Your task to perform on an android device: Do I have any events this weekend? Image 0: 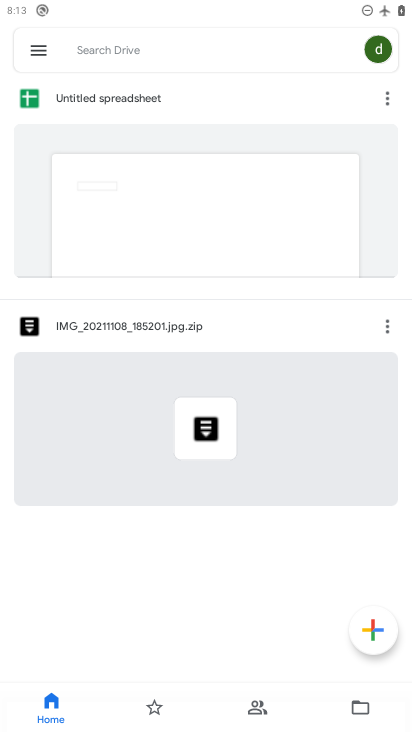
Step 0: press home button
Your task to perform on an android device: Do I have any events this weekend? Image 1: 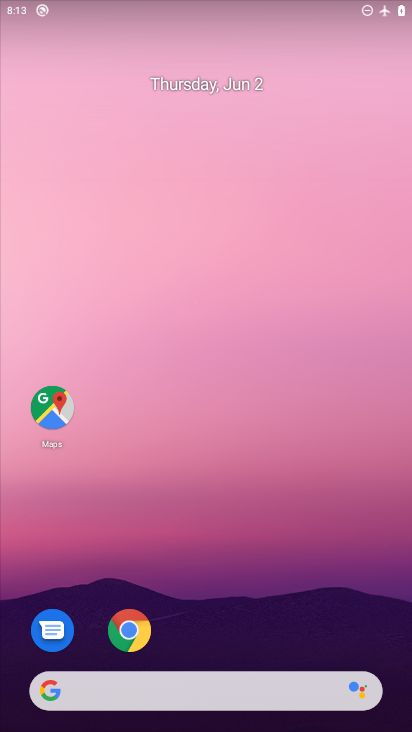
Step 1: drag from (146, 729) to (210, 46)
Your task to perform on an android device: Do I have any events this weekend? Image 2: 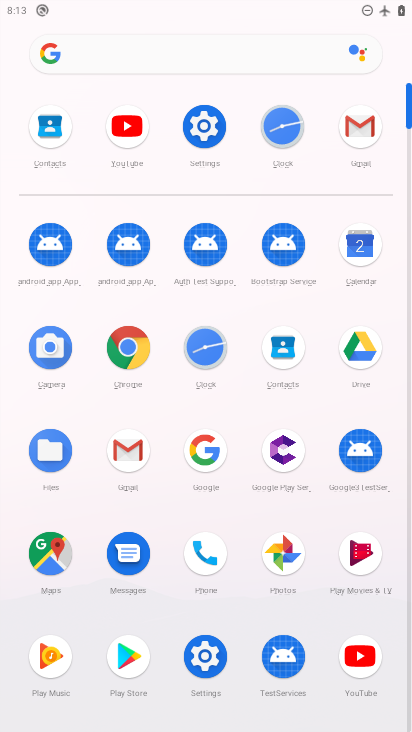
Step 2: click (359, 249)
Your task to perform on an android device: Do I have any events this weekend? Image 3: 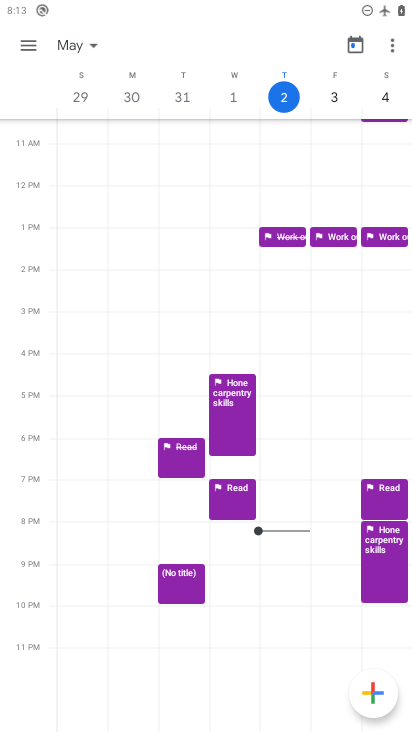
Step 3: click (33, 49)
Your task to perform on an android device: Do I have any events this weekend? Image 4: 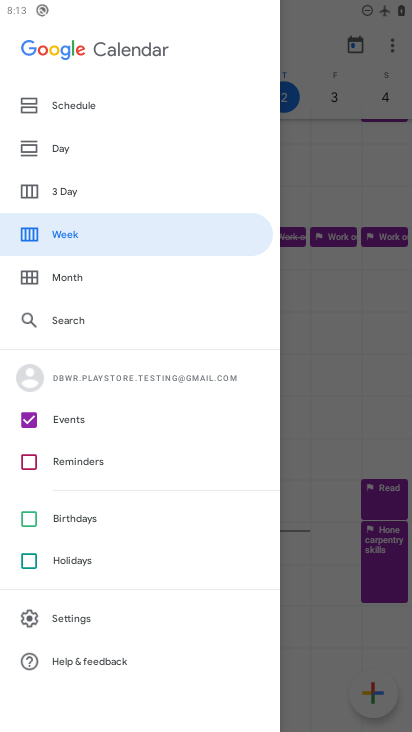
Step 4: click (74, 199)
Your task to perform on an android device: Do I have any events this weekend? Image 5: 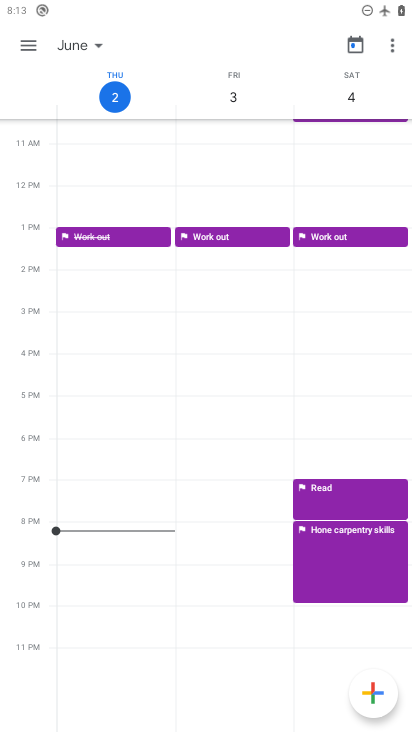
Step 5: drag from (380, 98) to (98, 99)
Your task to perform on an android device: Do I have any events this weekend? Image 6: 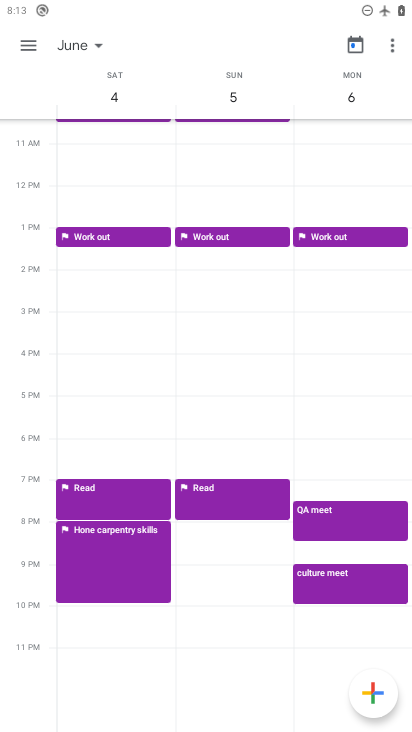
Step 6: drag from (219, 631) to (226, 379)
Your task to perform on an android device: Do I have any events this weekend? Image 7: 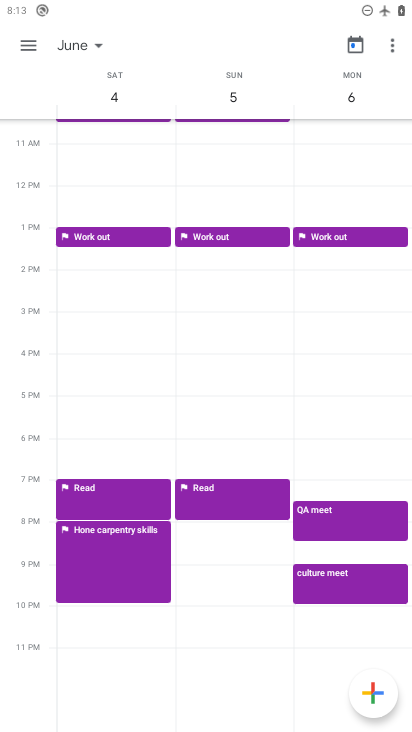
Step 7: click (252, 679)
Your task to perform on an android device: Do I have any events this weekend? Image 8: 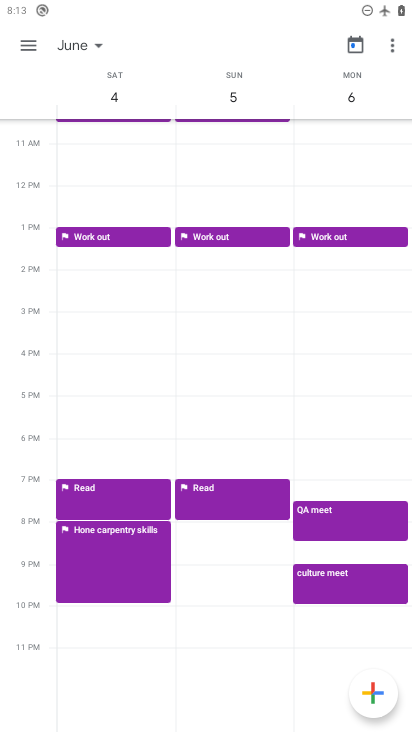
Step 8: task complete